Your task to perform on an android device: clear history in the chrome app Image 0: 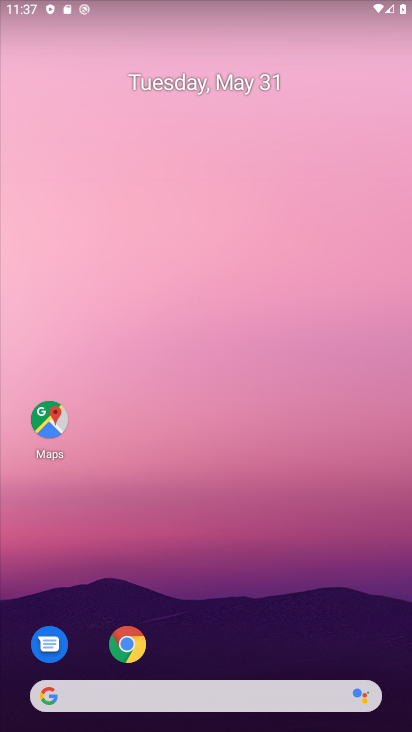
Step 0: drag from (369, 605) to (348, 207)
Your task to perform on an android device: clear history in the chrome app Image 1: 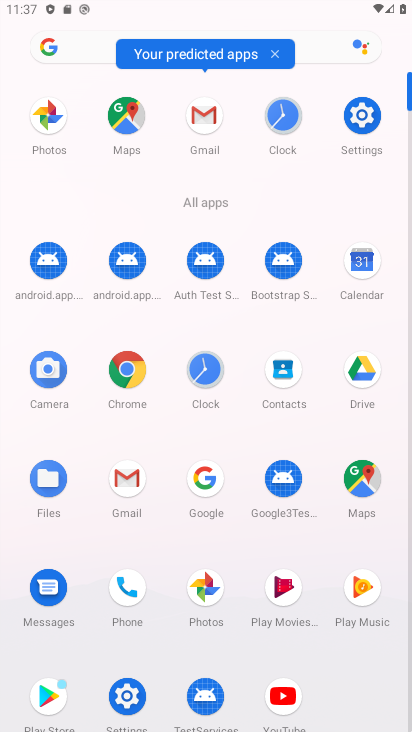
Step 1: click (121, 370)
Your task to perform on an android device: clear history in the chrome app Image 2: 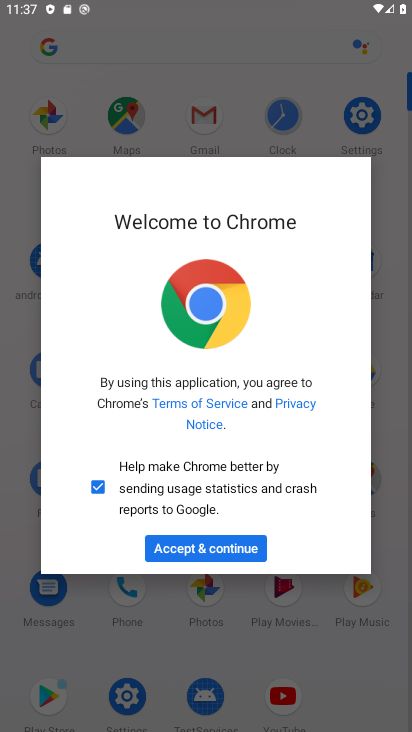
Step 2: click (233, 541)
Your task to perform on an android device: clear history in the chrome app Image 3: 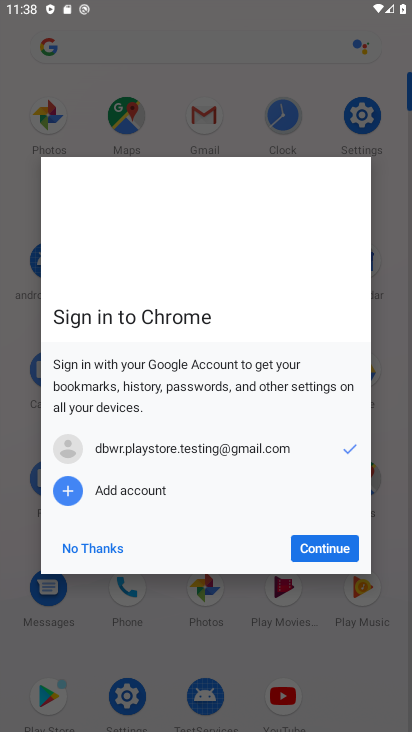
Step 3: click (331, 546)
Your task to perform on an android device: clear history in the chrome app Image 4: 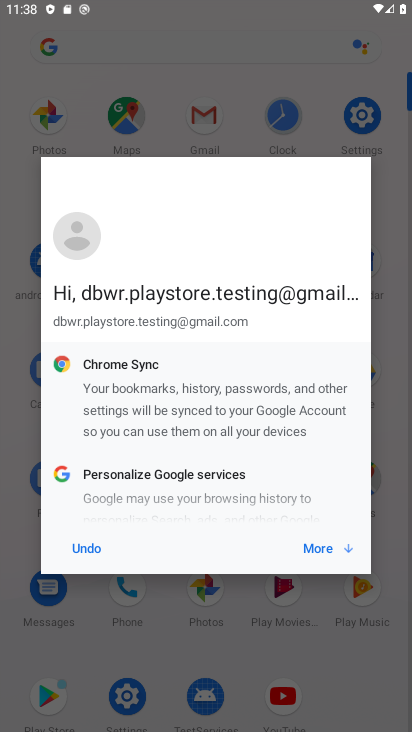
Step 4: click (334, 553)
Your task to perform on an android device: clear history in the chrome app Image 5: 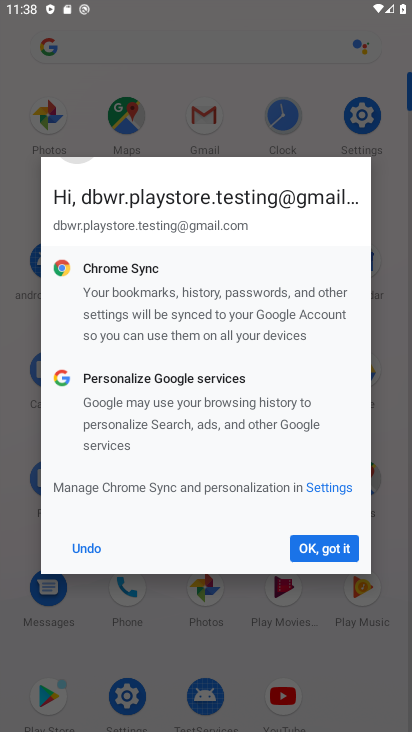
Step 5: click (335, 552)
Your task to perform on an android device: clear history in the chrome app Image 6: 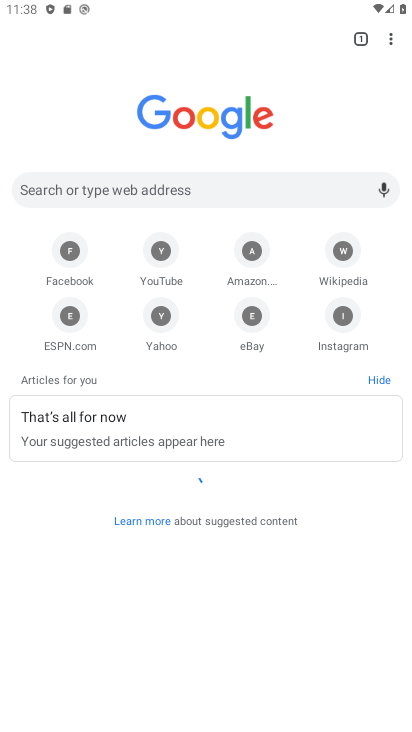
Step 6: task complete